Your task to perform on an android device: open app "WhatsApp Messenger" (install if not already installed) Image 0: 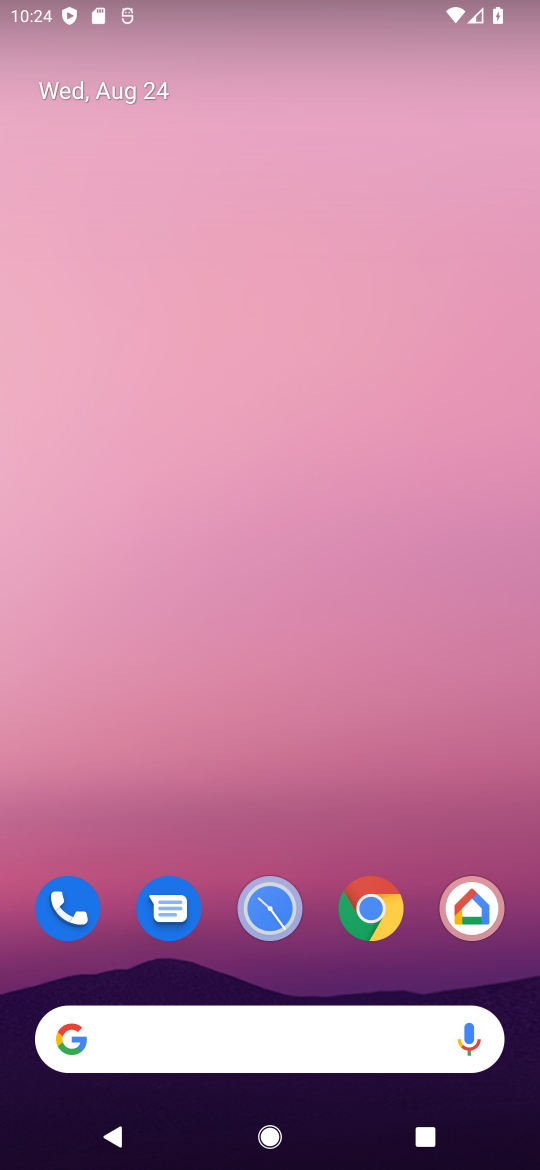
Step 0: drag from (271, 973) to (301, 203)
Your task to perform on an android device: open app "WhatsApp Messenger" (install if not already installed) Image 1: 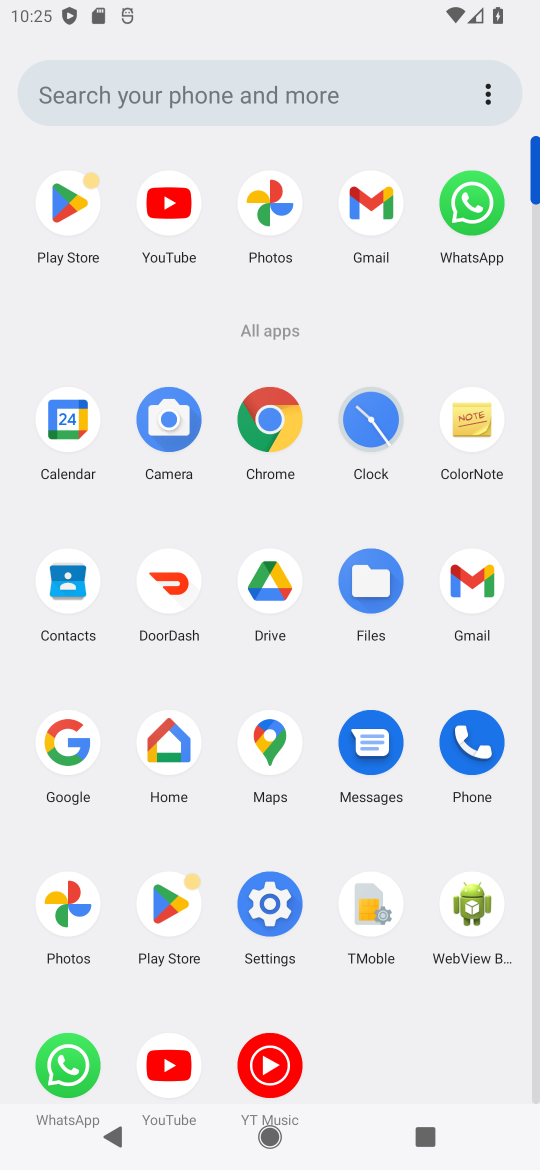
Step 1: click (160, 935)
Your task to perform on an android device: open app "WhatsApp Messenger" (install if not already installed) Image 2: 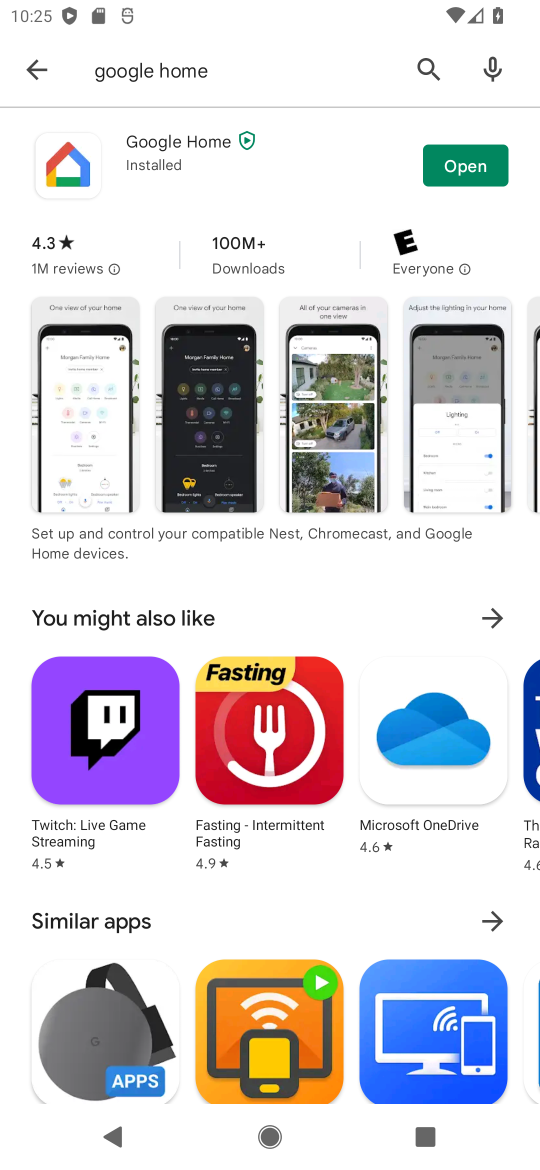
Step 2: click (438, 86)
Your task to perform on an android device: open app "WhatsApp Messenger" (install if not already installed) Image 3: 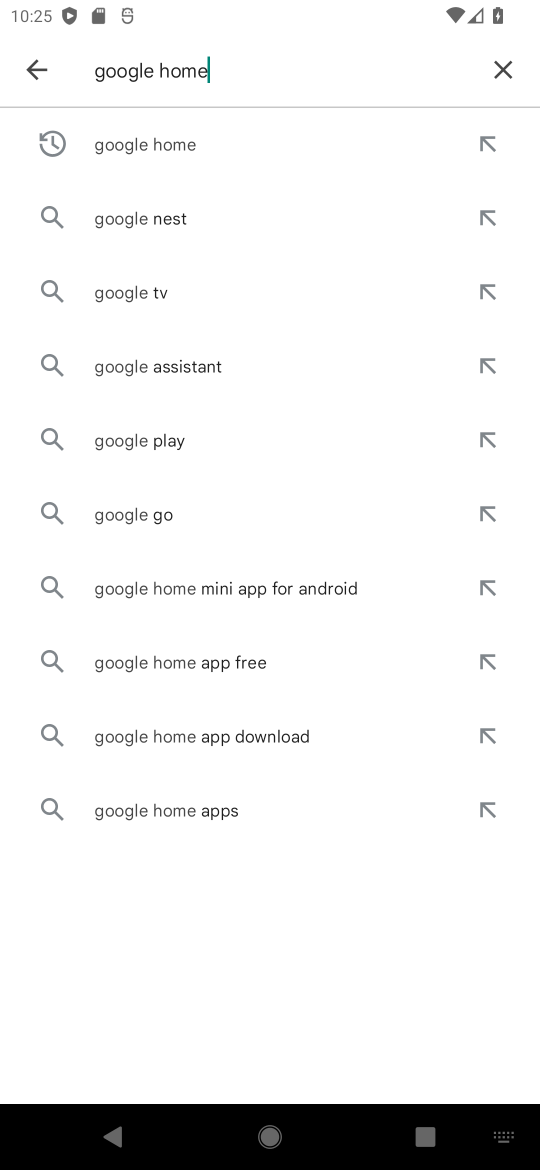
Step 3: click (500, 50)
Your task to perform on an android device: open app "WhatsApp Messenger" (install if not already installed) Image 4: 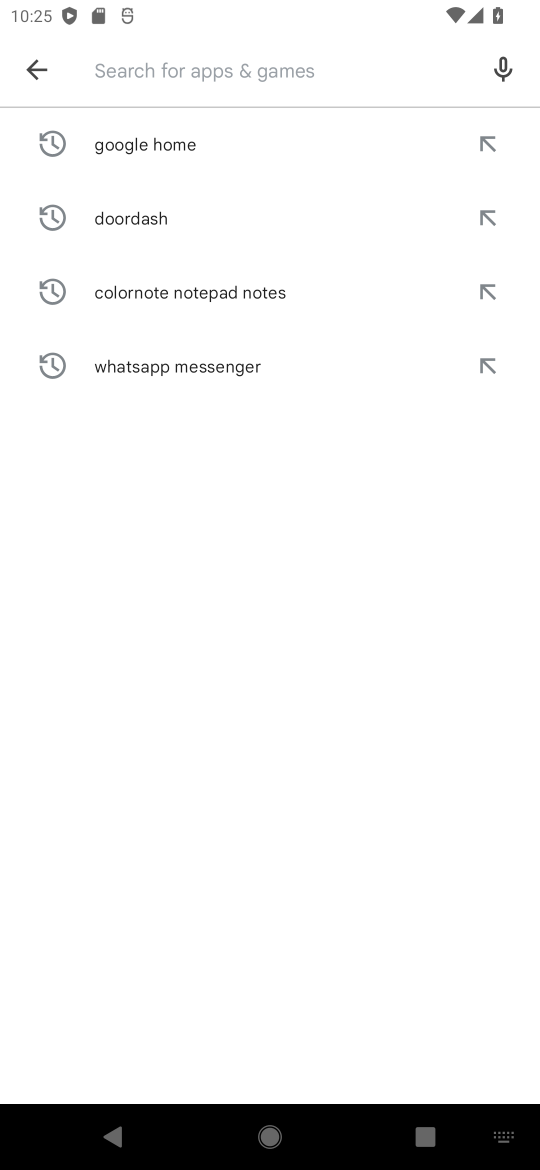
Step 4: type "WhatsApp Messenger"
Your task to perform on an android device: open app "WhatsApp Messenger" (install if not already installed) Image 5: 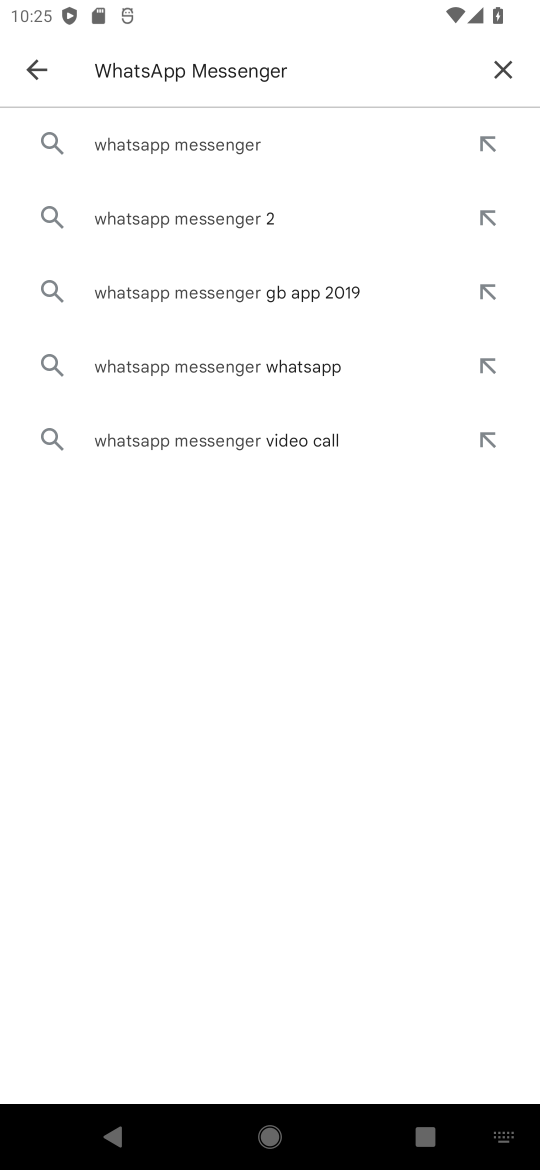
Step 5: click (184, 134)
Your task to perform on an android device: open app "WhatsApp Messenger" (install if not already installed) Image 6: 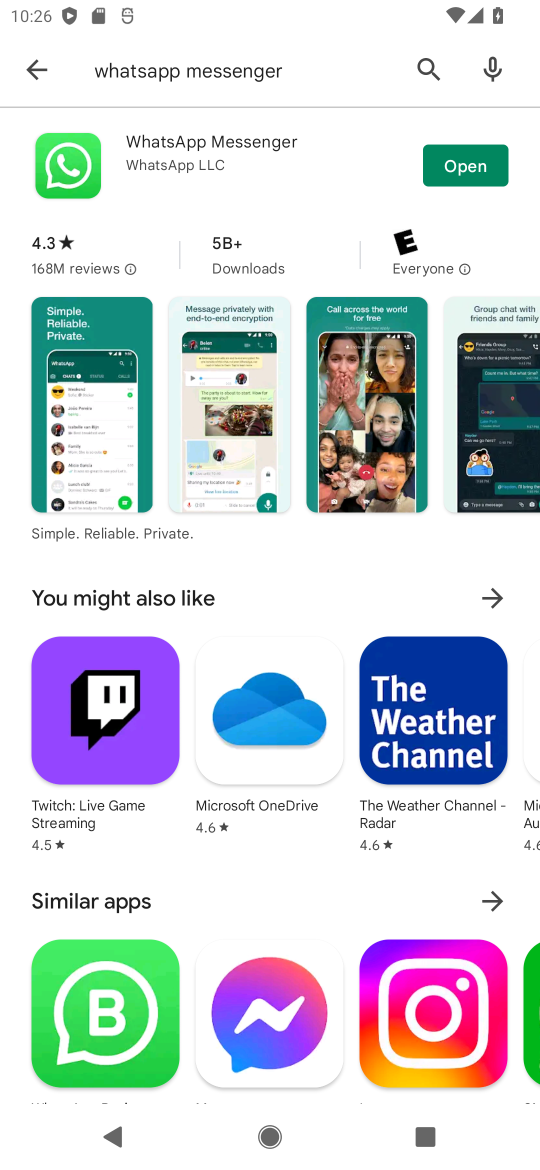
Step 6: click (480, 156)
Your task to perform on an android device: open app "WhatsApp Messenger" (install if not already installed) Image 7: 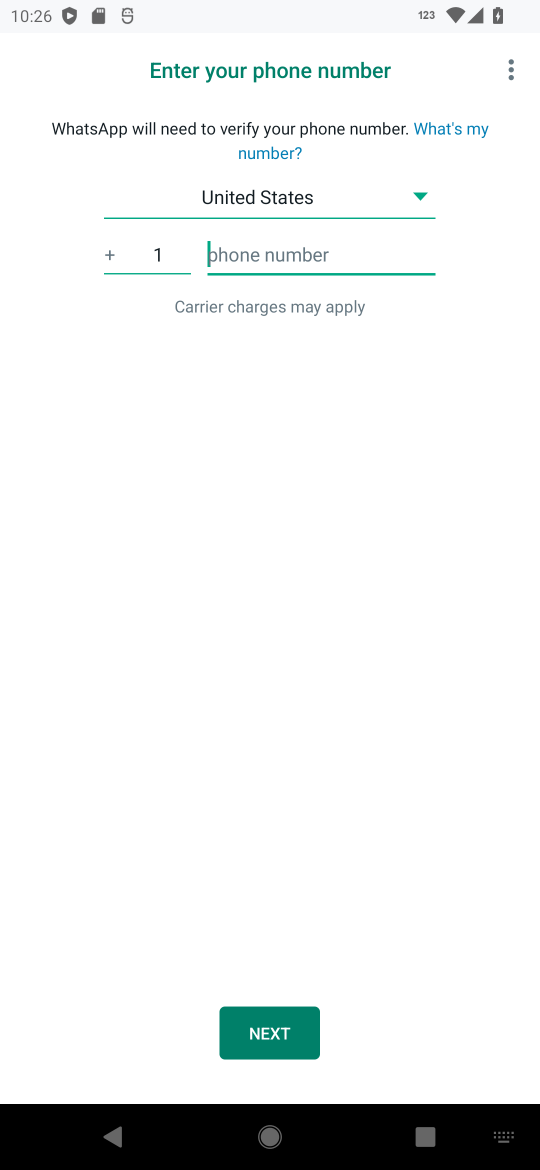
Step 7: task complete